Your task to perform on an android device: find photos in the google photos app Image 0: 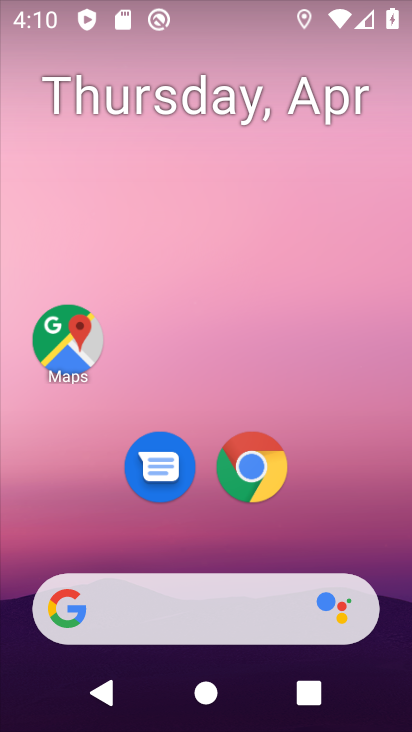
Step 0: drag from (195, 456) to (219, 115)
Your task to perform on an android device: find photos in the google photos app Image 1: 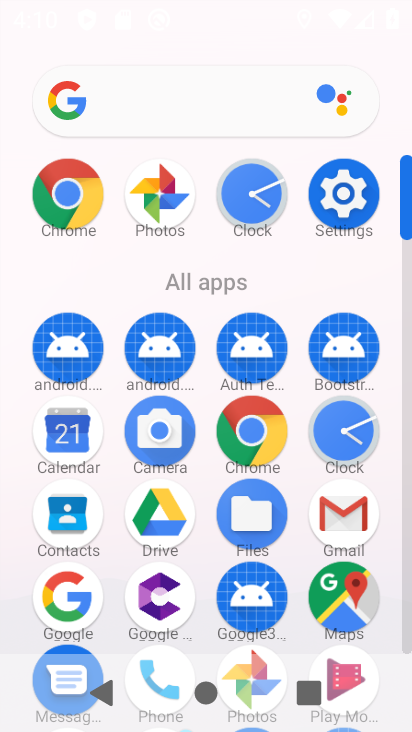
Step 1: drag from (199, 639) to (282, 289)
Your task to perform on an android device: find photos in the google photos app Image 2: 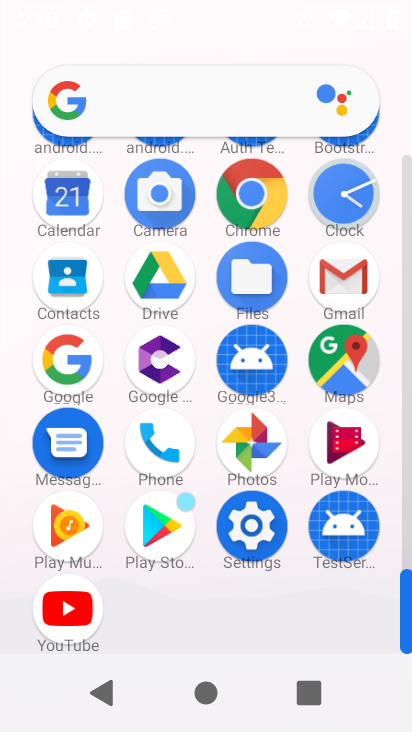
Step 2: click (253, 451)
Your task to perform on an android device: find photos in the google photos app Image 3: 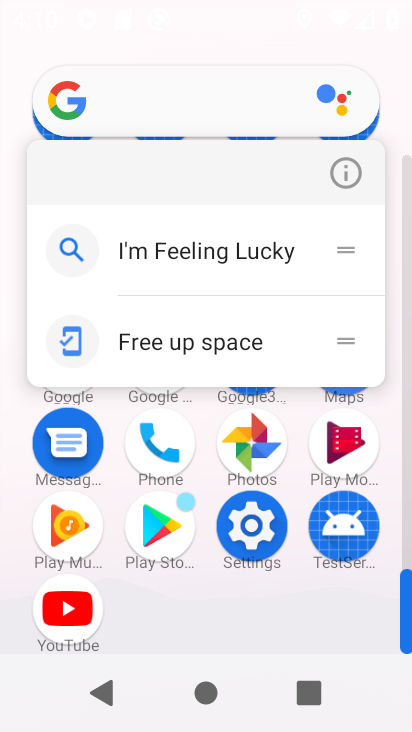
Step 3: click (253, 450)
Your task to perform on an android device: find photos in the google photos app Image 4: 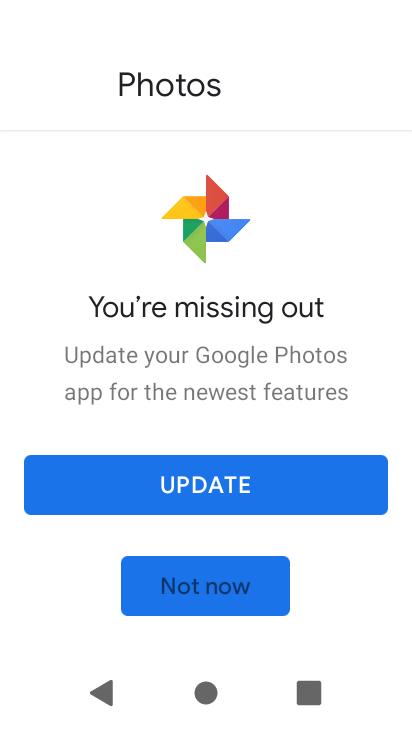
Step 4: click (208, 602)
Your task to perform on an android device: find photos in the google photos app Image 5: 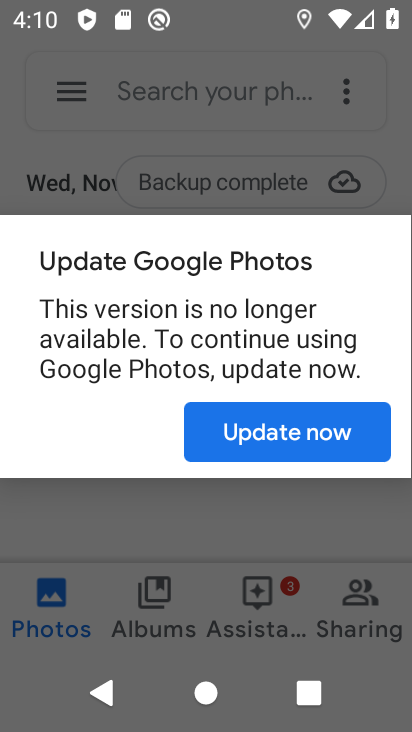
Step 5: click (326, 420)
Your task to perform on an android device: find photos in the google photos app Image 6: 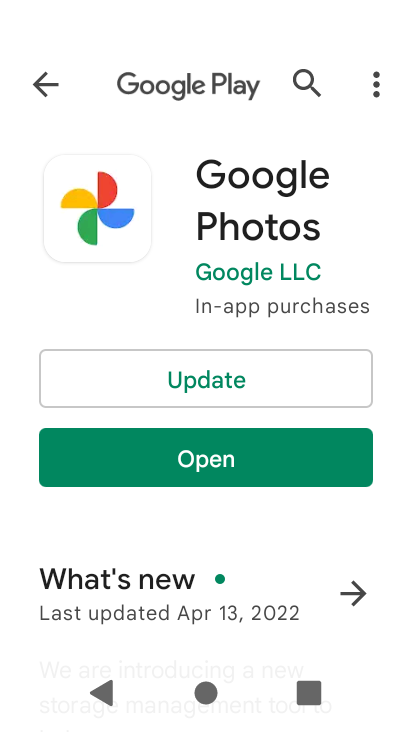
Step 6: click (158, 461)
Your task to perform on an android device: find photos in the google photos app Image 7: 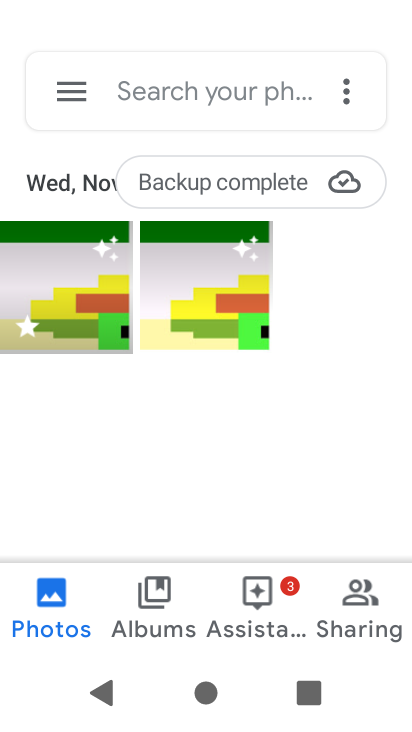
Step 7: task complete